Your task to perform on an android device: Show me recent news Image 0: 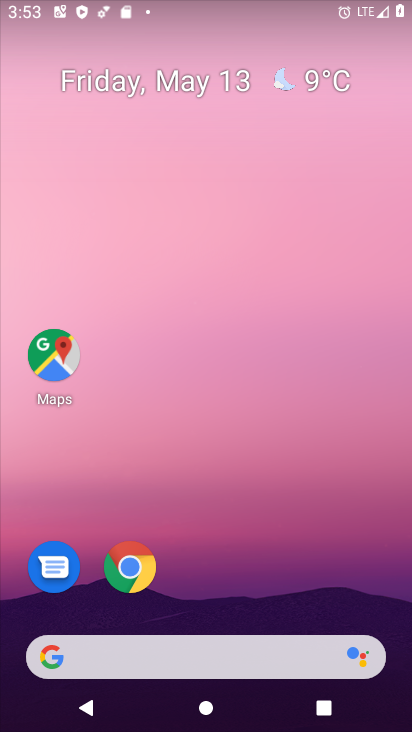
Step 0: click (122, 656)
Your task to perform on an android device: Show me recent news Image 1: 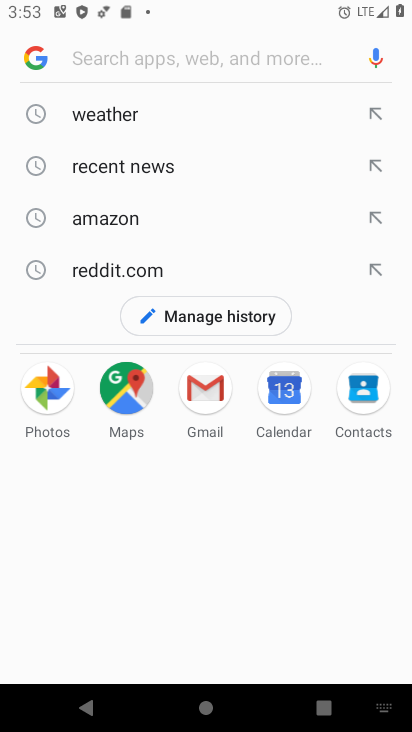
Step 1: click (144, 163)
Your task to perform on an android device: Show me recent news Image 2: 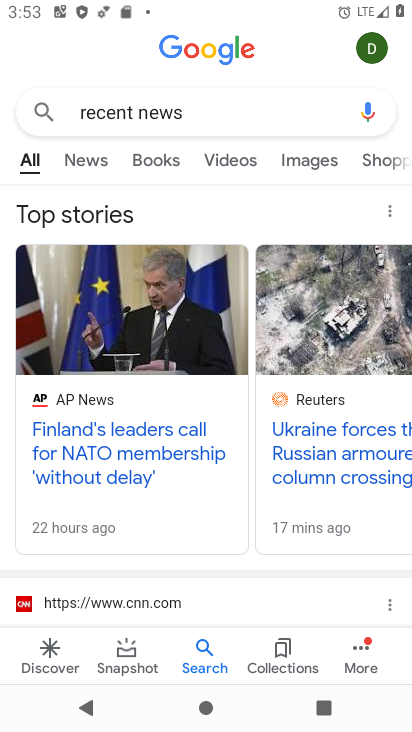
Step 2: click (86, 166)
Your task to perform on an android device: Show me recent news Image 3: 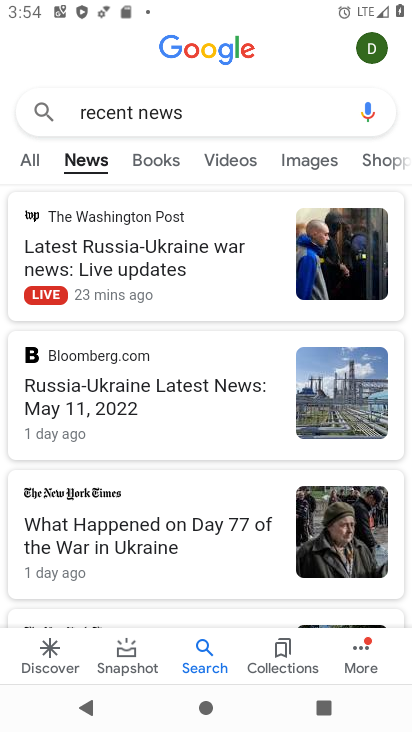
Step 3: click (120, 275)
Your task to perform on an android device: Show me recent news Image 4: 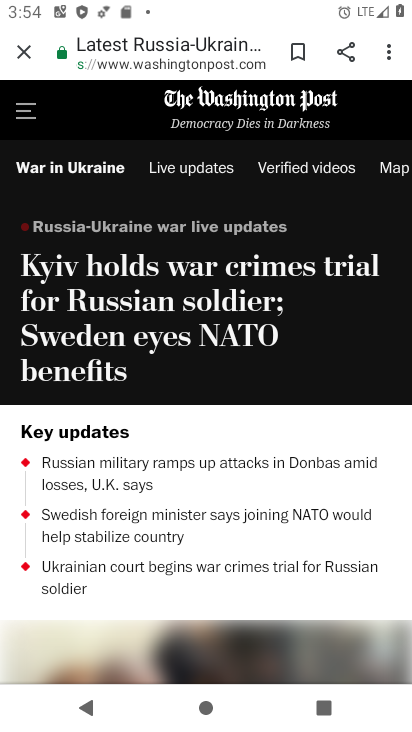
Step 4: task complete